Your task to perform on an android device: turn on notifications settings in the gmail app Image 0: 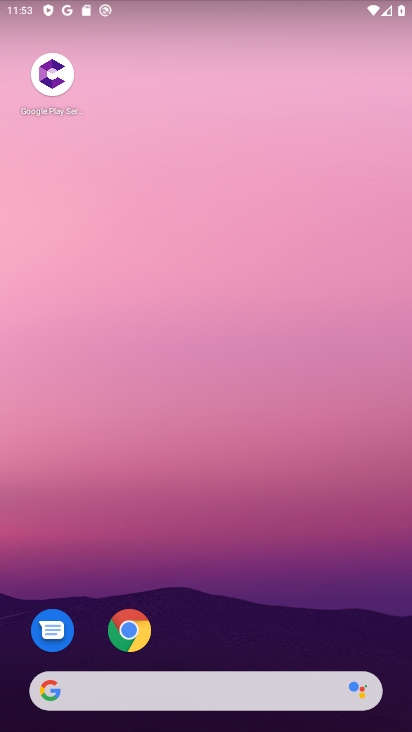
Step 0: drag from (275, 322) to (336, 169)
Your task to perform on an android device: turn on notifications settings in the gmail app Image 1: 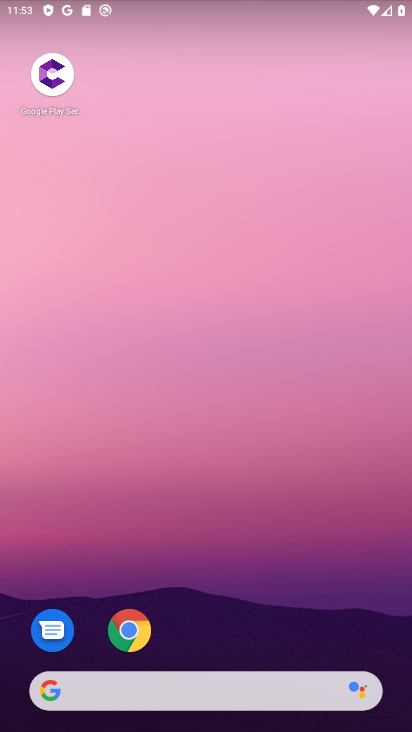
Step 1: drag from (186, 510) to (233, 81)
Your task to perform on an android device: turn on notifications settings in the gmail app Image 2: 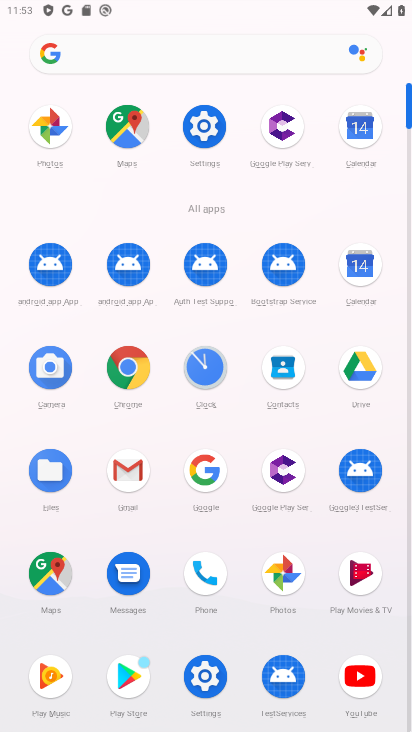
Step 2: click (108, 461)
Your task to perform on an android device: turn on notifications settings in the gmail app Image 3: 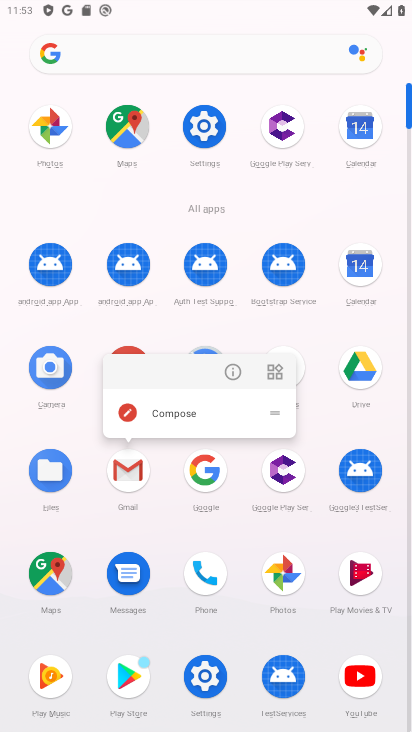
Step 3: click (235, 376)
Your task to perform on an android device: turn on notifications settings in the gmail app Image 4: 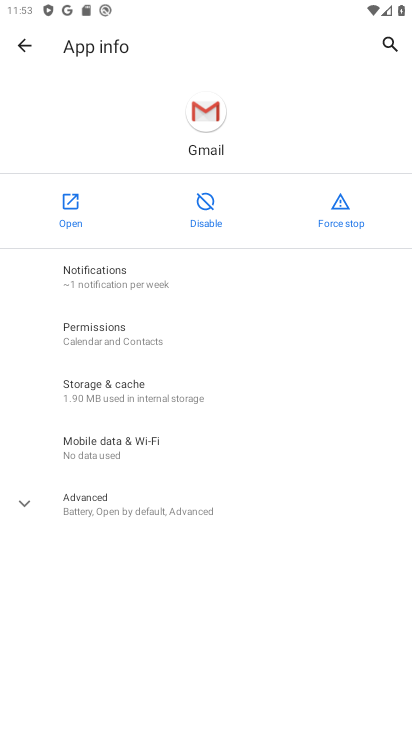
Step 4: click (78, 190)
Your task to perform on an android device: turn on notifications settings in the gmail app Image 5: 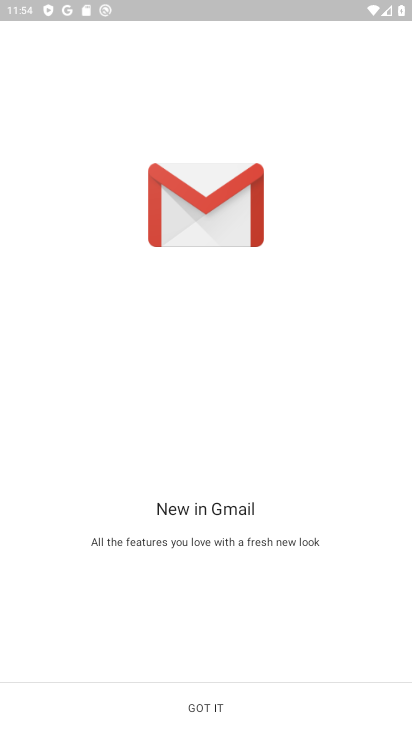
Step 5: drag from (203, 528) to (241, 299)
Your task to perform on an android device: turn on notifications settings in the gmail app Image 6: 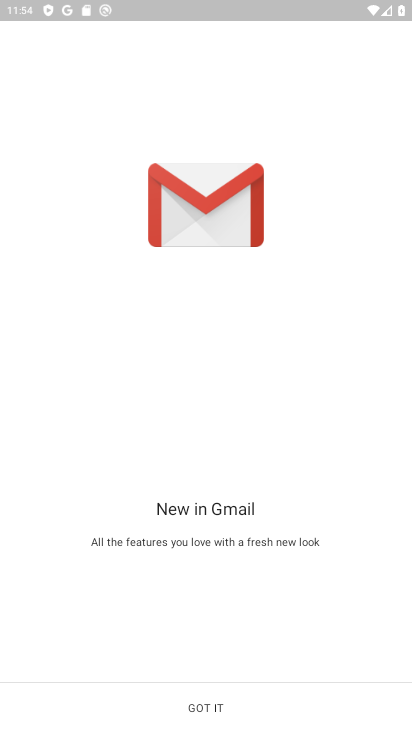
Step 6: click (183, 698)
Your task to perform on an android device: turn on notifications settings in the gmail app Image 7: 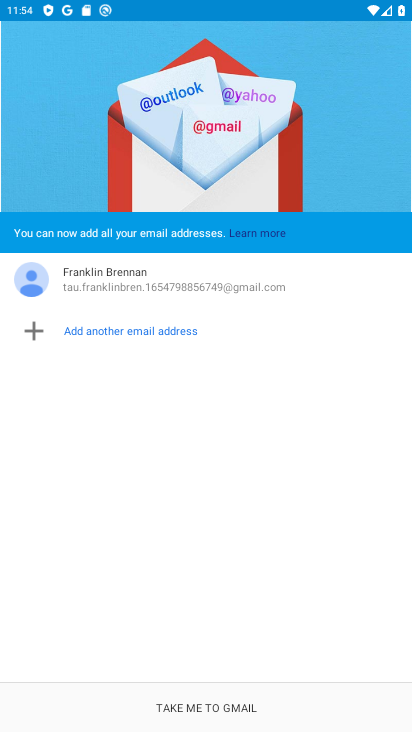
Step 7: click (205, 698)
Your task to perform on an android device: turn on notifications settings in the gmail app Image 8: 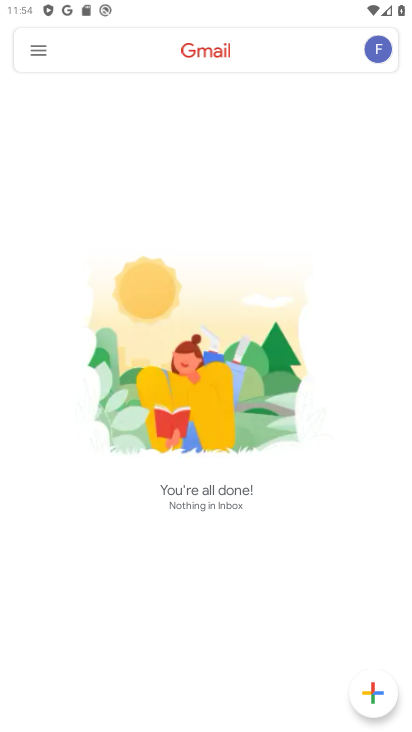
Step 8: click (19, 45)
Your task to perform on an android device: turn on notifications settings in the gmail app Image 9: 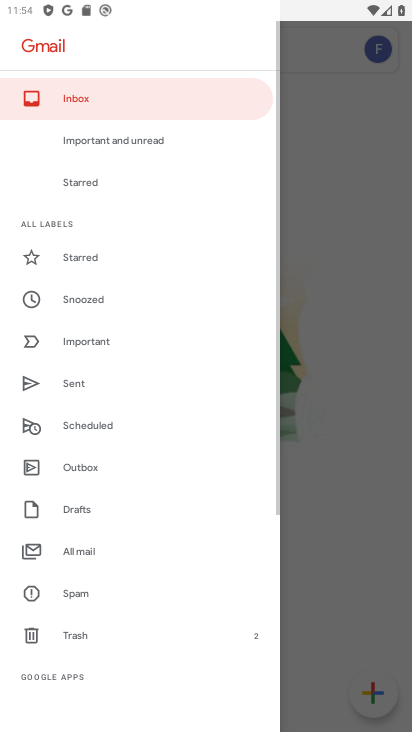
Step 9: drag from (125, 608) to (152, 138)
Your task to perform on an android device: turn on notifications settings in the gmail app Image 10: 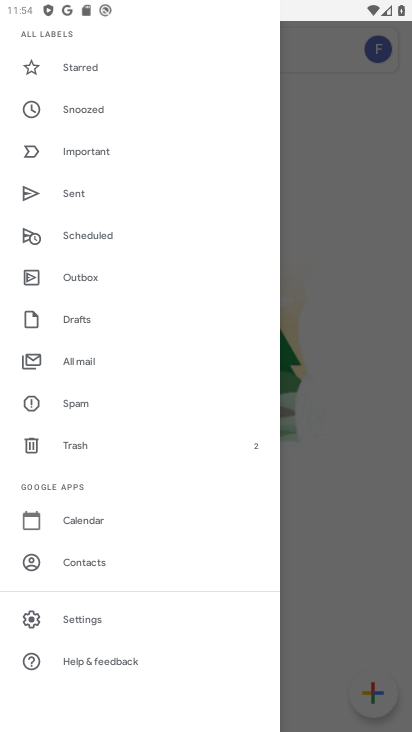
Step 10: click (98, 621)
Your task to perform on an android device: turn on notifications settings in the gmail app Image 11: 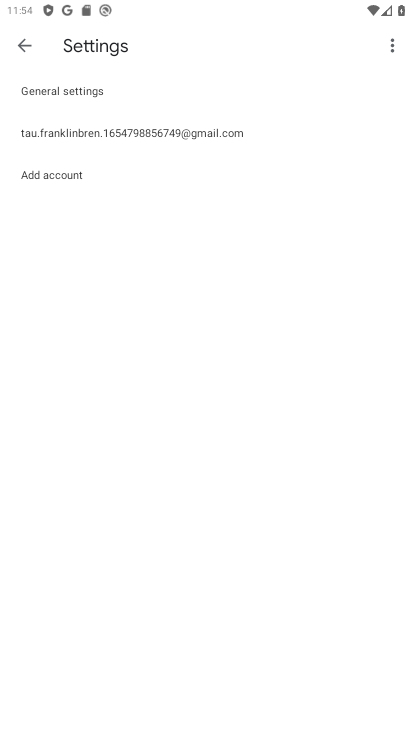
Step 11: click (146, 153)
Your task to perform on an android device: turn on notifications settings in the gmail app Image 12: 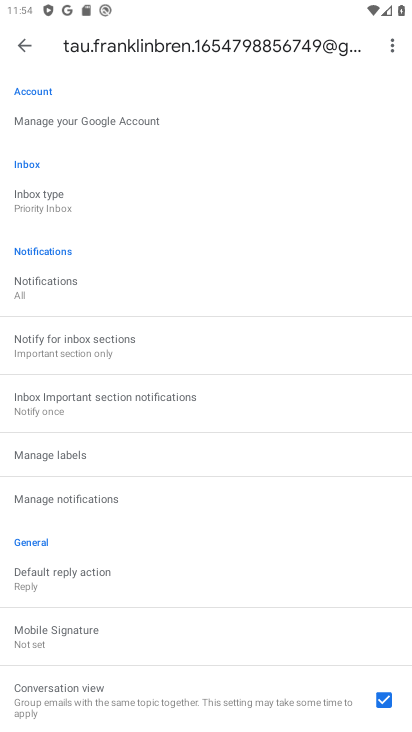
Step 12: click (110, 512)
Your task to perform on an android device: turn on notifications settings in the gmail app Image 13: 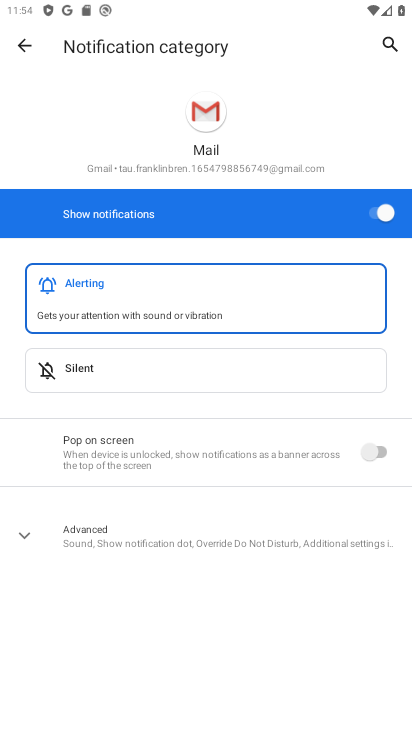
Step 13: task complete